Your task to perform on an android device: Search for "logitech g pro" on newegg.com, select the first entry, and add it to the cart. Image 0: 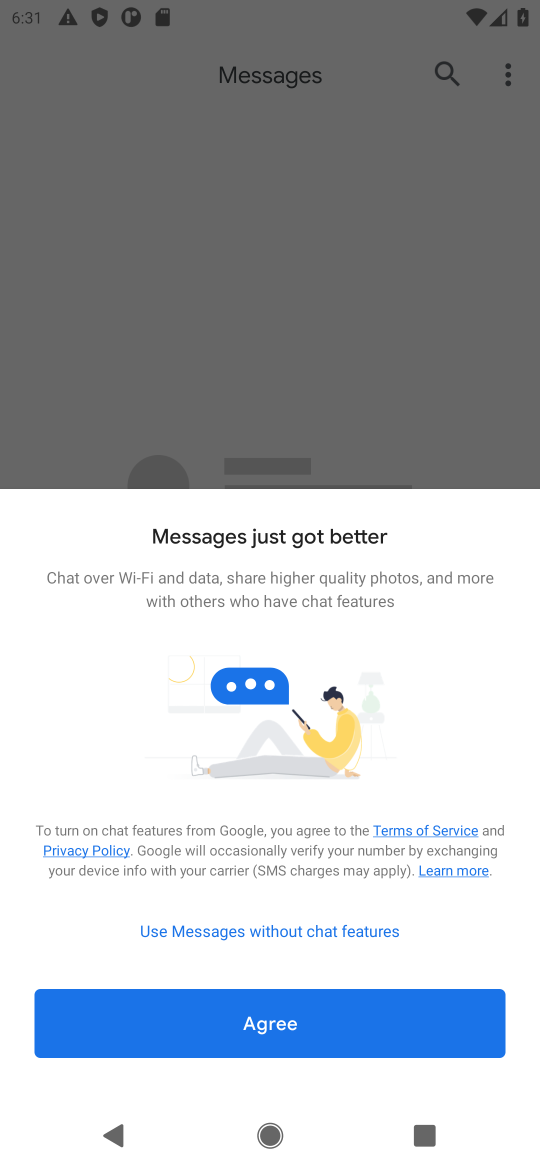
Step 0: press home button
Your task to perform on an android device: Search for "logitech g pro" on newegg.com, select the first entry, and add it to the cart. Image 1: 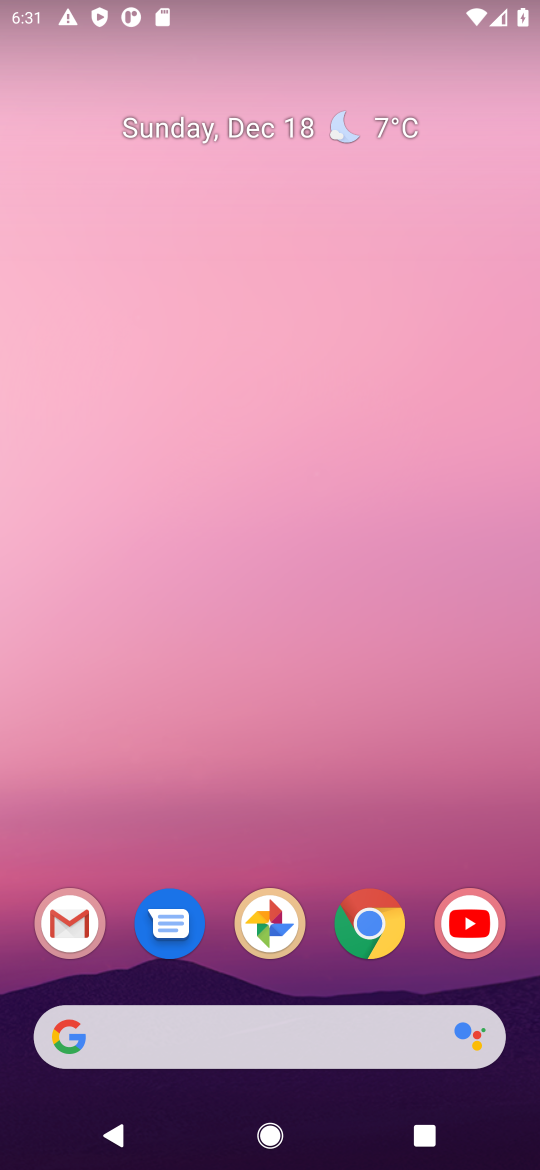
Step 1: click (140, 1032)
Your task to perform on an android device: Search for "logitech g pro" on newegg.com, select the first entry, and add it to the cart. Image 2: 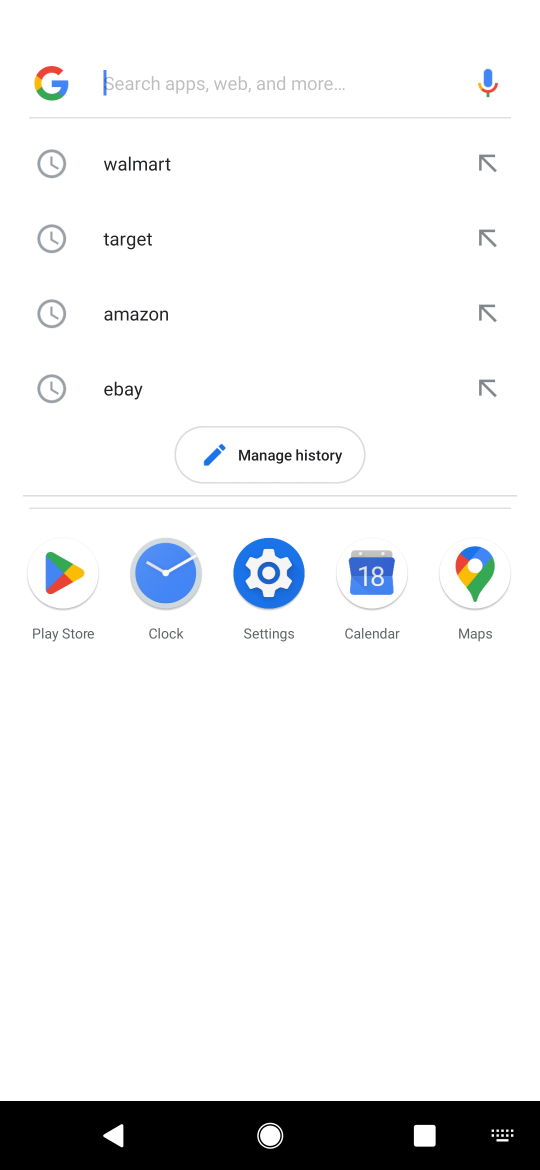
Step 2: type "newegg.com"
Your task to perform on an android device: Search for "logitech g pro" on newegg.com, select the first entry, and add it to the cart. Image 3: 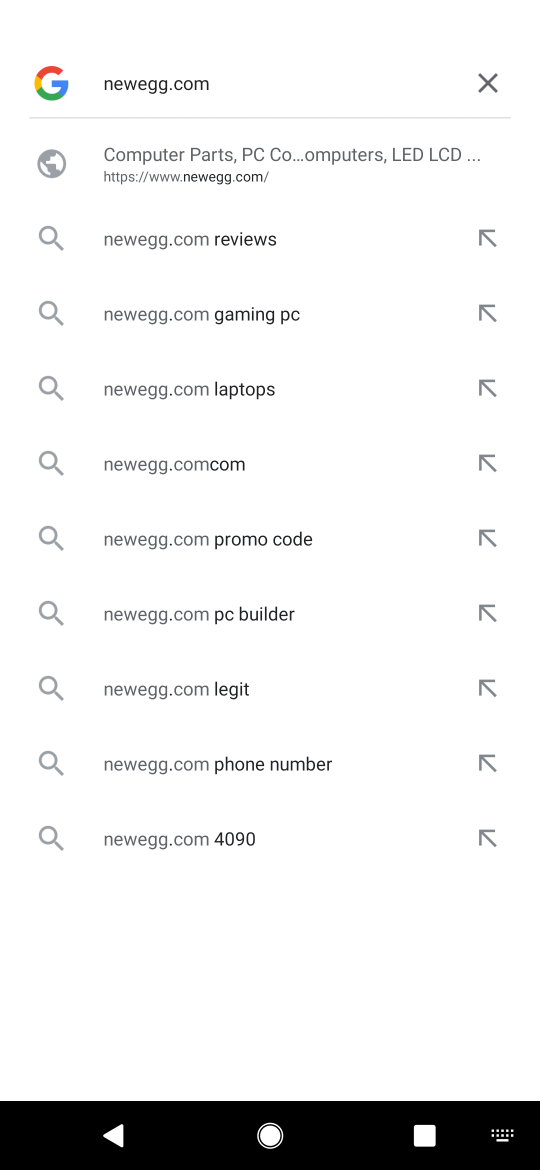
Step 3: press enter
Your task to perform on an android device: Search for "logitech g pro" on newegg.com, select the first entry, and add it to the cart. Image 4: 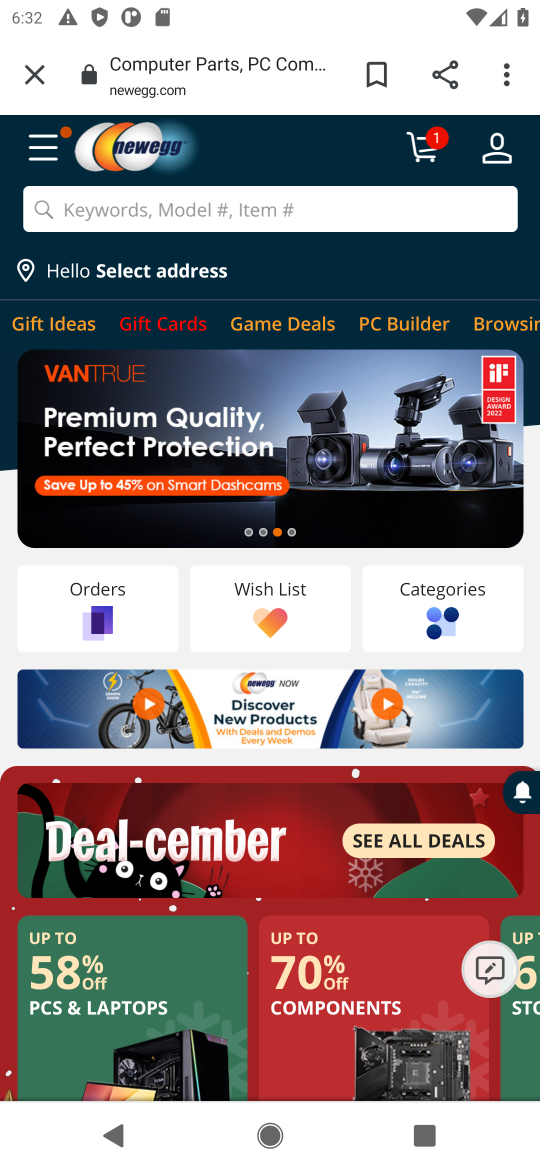
Step 4: click (265, 208)
Your task to perform on an android device: Search for "logitech g pro" on newegg.com, select the first entry, and add it to the cart. Image 5: 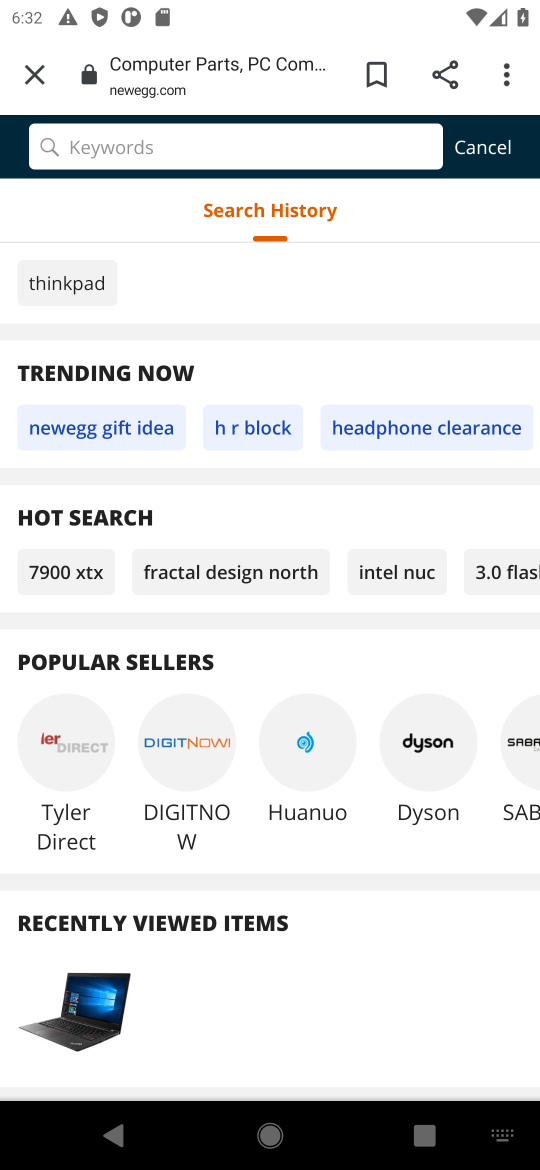
Step 5: type "logitech g pro"
Your task to perform on an android device: Search for "logitech g pro" on newegg.com, select the first entry, and add it to the cart. Image 6: 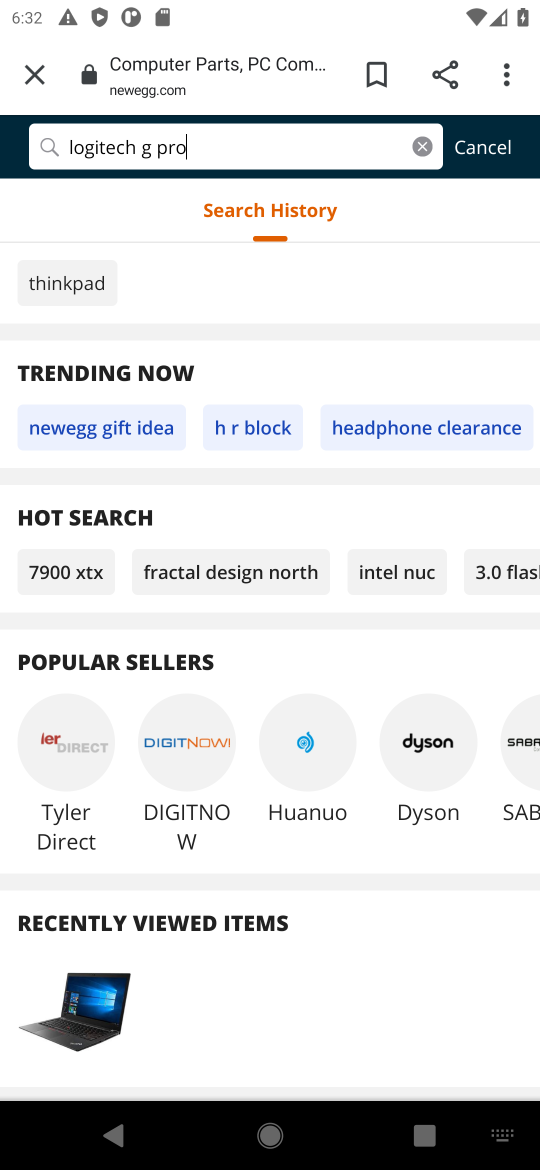
Step 6: press enter
Your task to perform on an android device: Search for "logitech g pro" on newegg.com, select the first entry, and add it to the cart. Image 7: 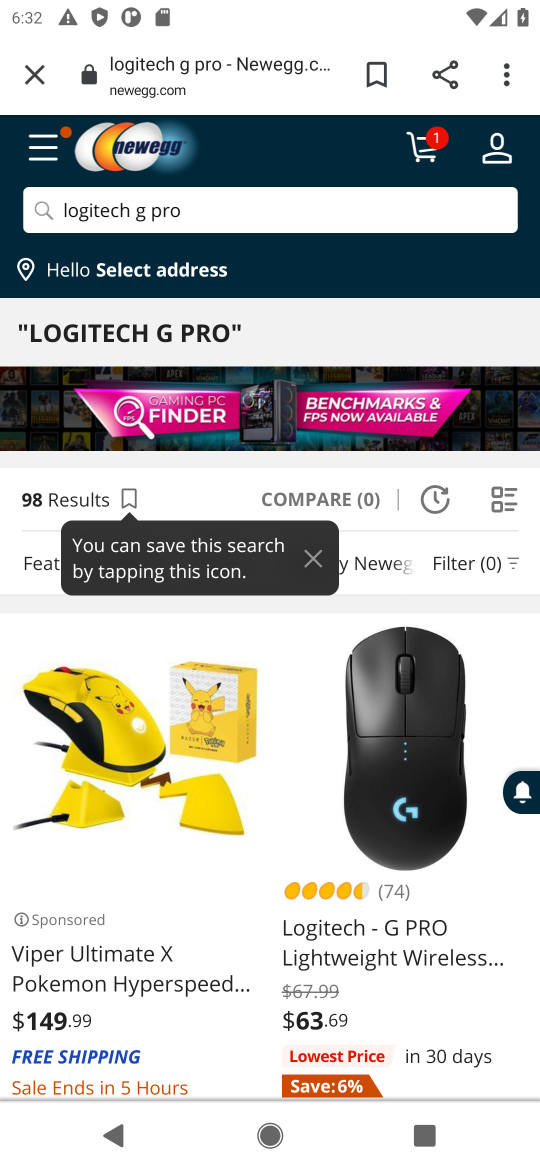
Step 7: drag from (294, 1013) to (334, 640)
Your task to perform on an android device: Search for "logitech g pro" on newegg.com, select the first entry, and add it to the cart. Image 8: 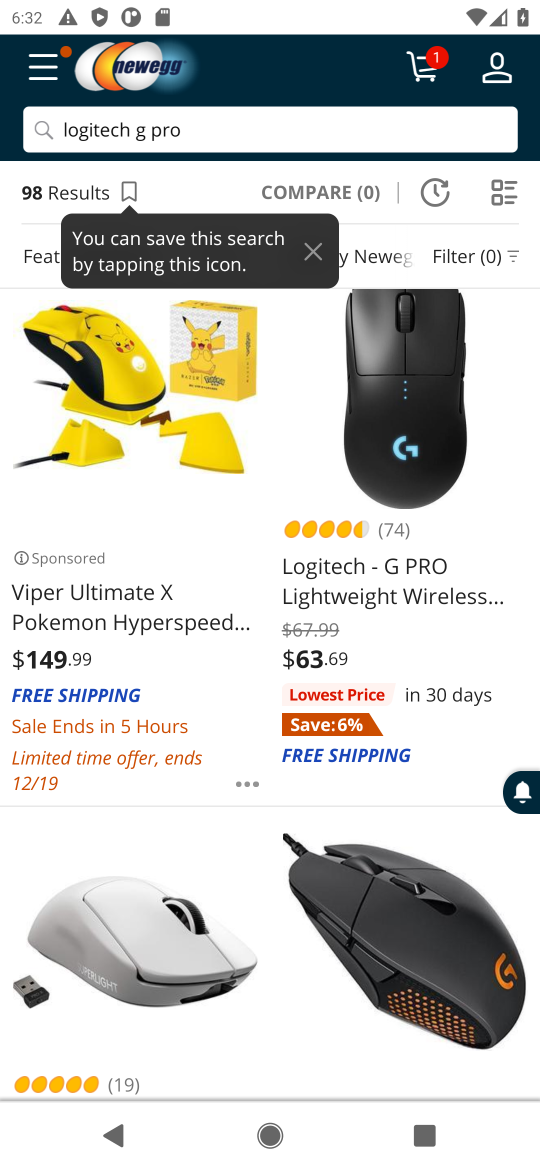
Step 8: click (377, 589)
Your task to perform on an android device: Search for "logitech g pro" on newegg.com, select the first entry, and add it to the cart. Image 9: 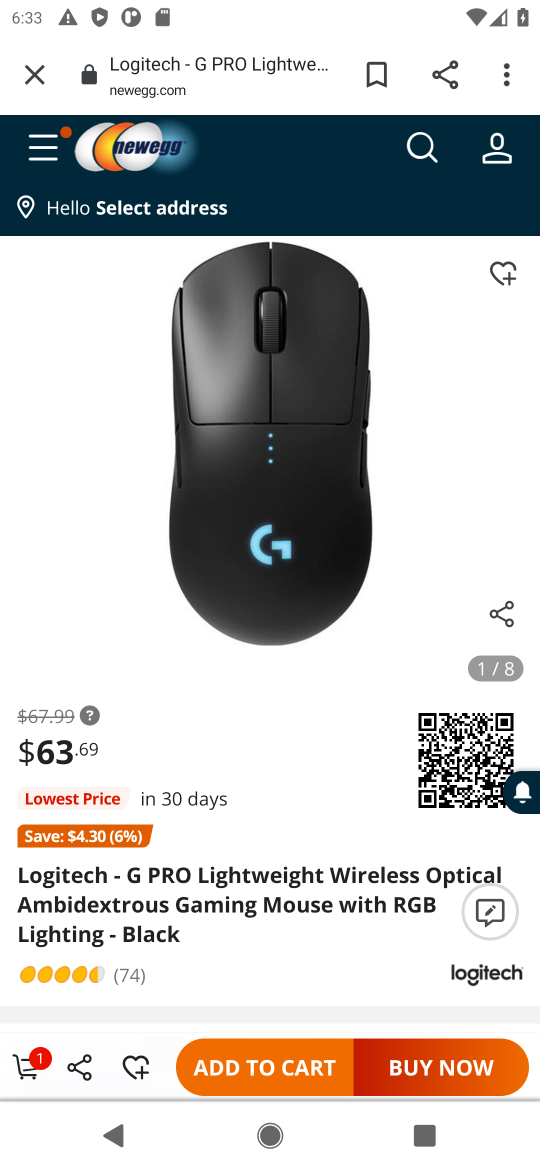
Step 9: click (249, 1076)
Your task to perform on an android device: Search for "logitech g pro" on newegg.com, select the first entry, and add it to the cart. Image 10: 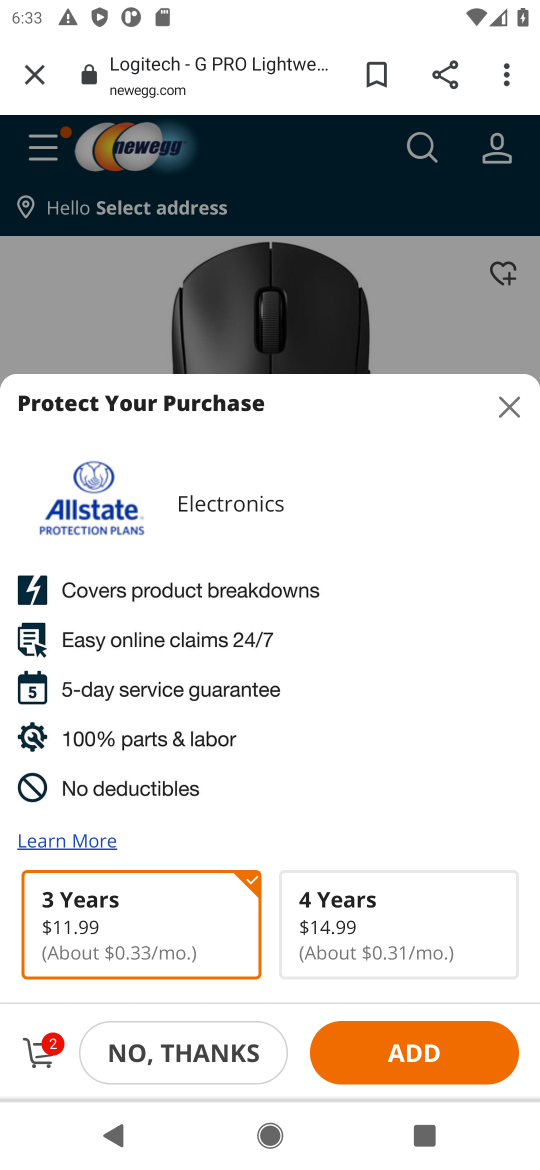
Step 10: task complete